Your task to perform on an android device: find which apps use the phone's location Image 0: 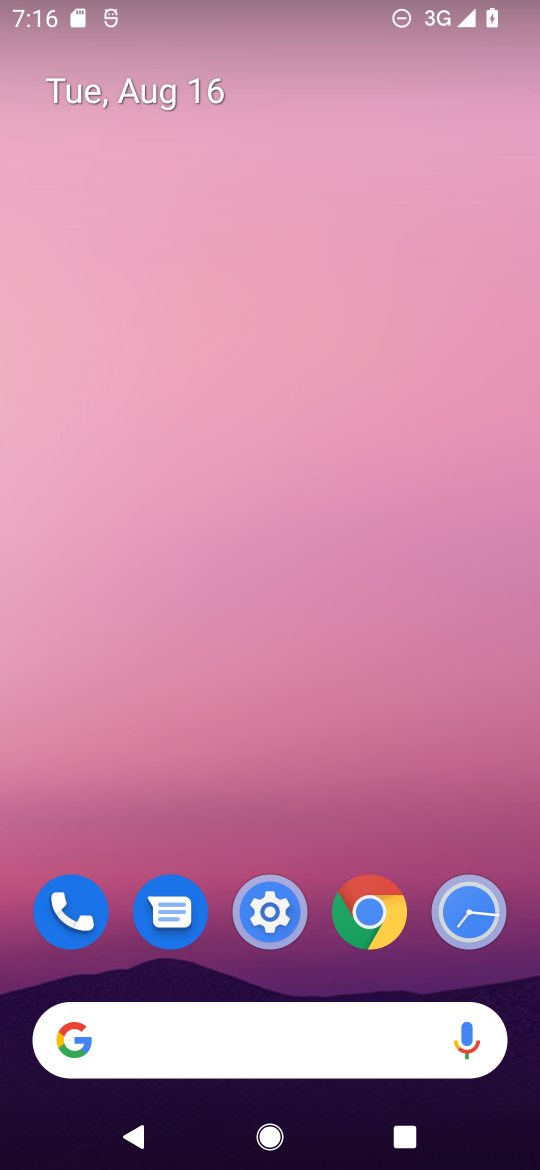
Step 0: click (271, 914)
Your task to perform on an android device: find which apps use the phone's location Image 1: 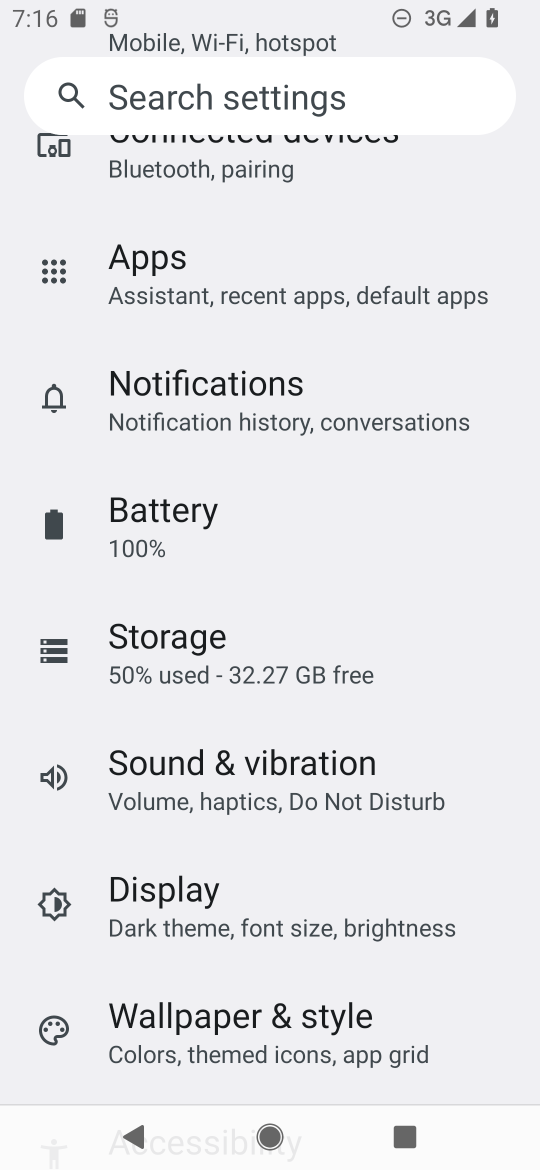
Step 1: drag from (464, 944) to (409, 393)
Your task to perform on an android device: find which apps use the phone's location Image 2: 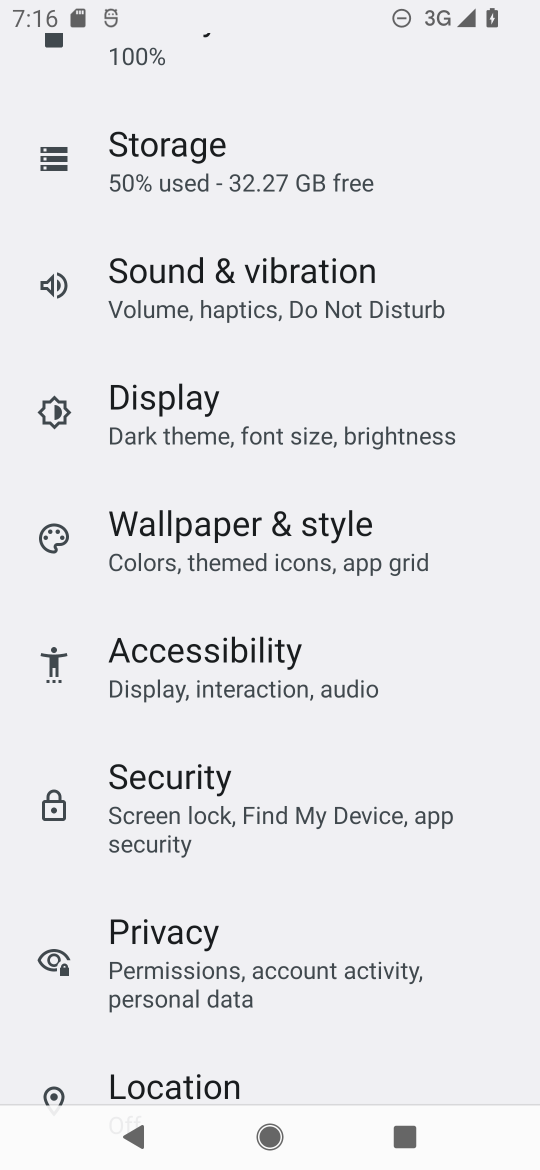
Step 2: drag from (452, 997) to (463, 534)
Your task to perform on an android device: find which apps use the phone's location Image 3: 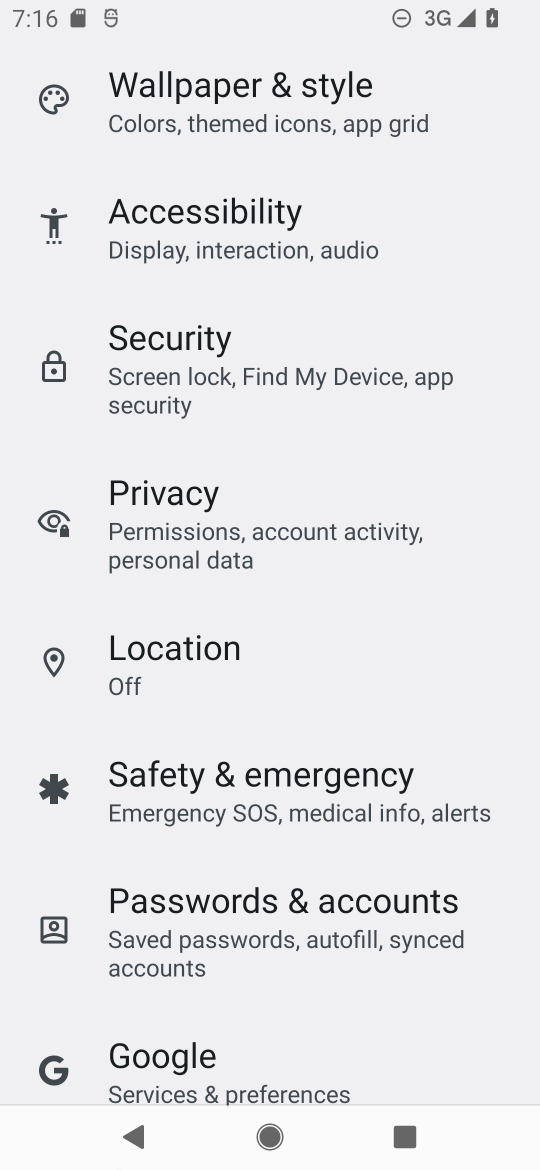
Step 3: click (152, 657)
Your task to perform on an android device: find which apps use the phone's location Image 4: 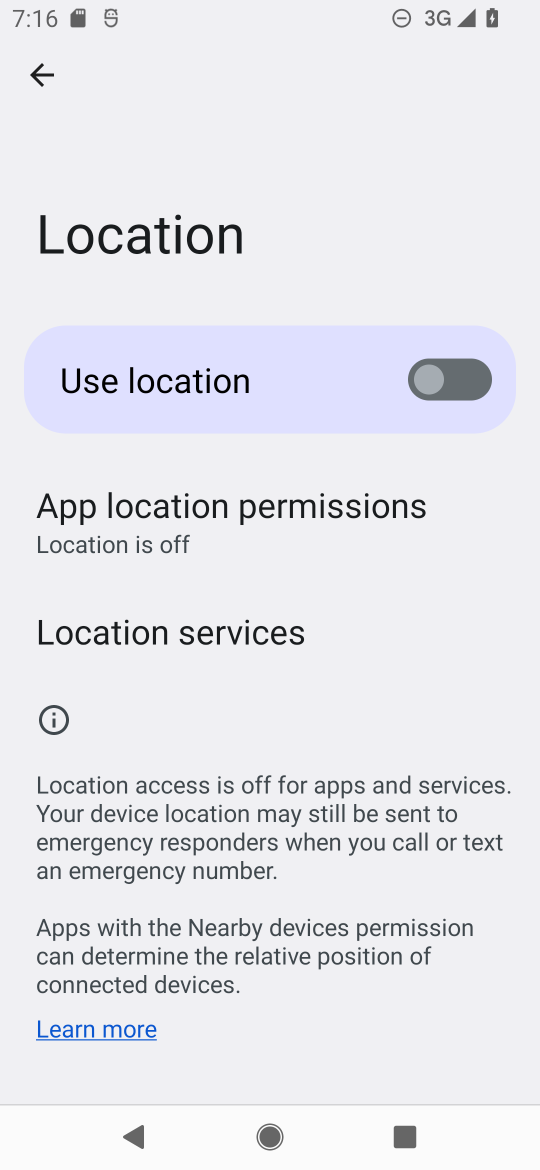
Step 4: click (194, 520)
Your task to perform on an android device: find which apps use the phone's location Image 5: 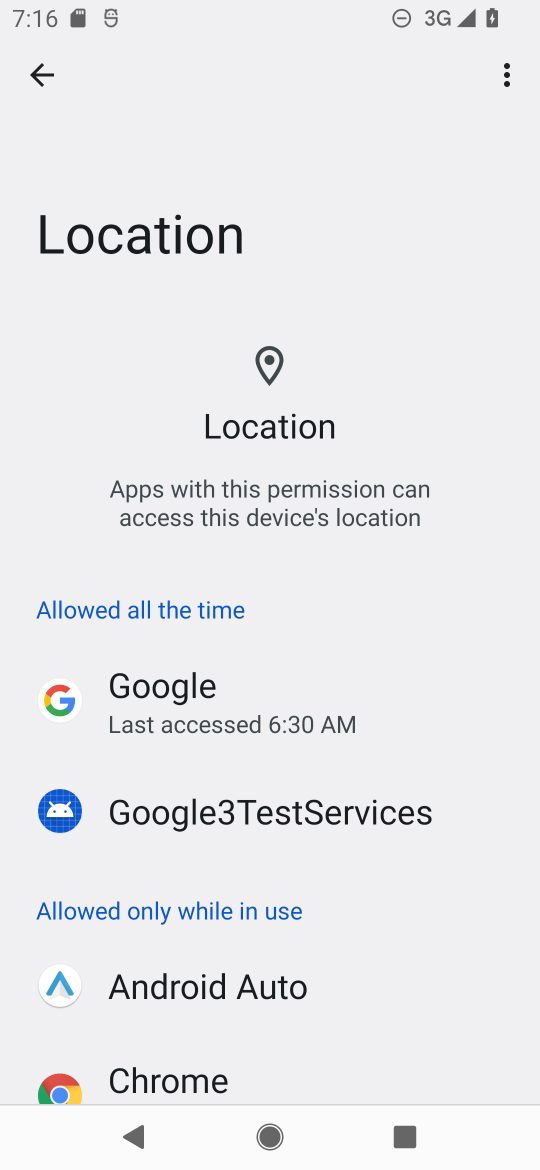
Step 5: task complete